Your task to perform on an android device: Go to network settings Image 0: 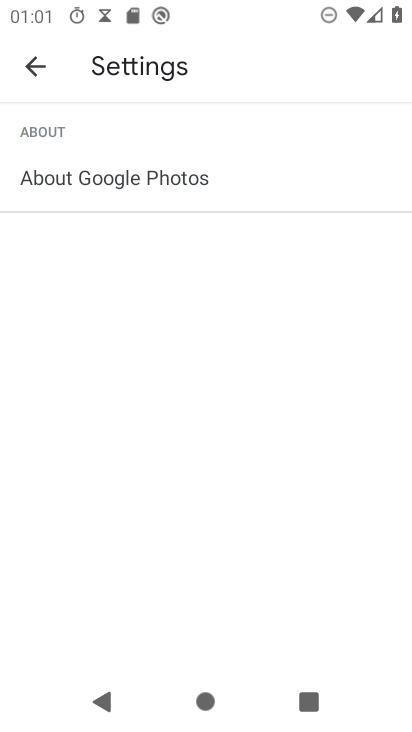
Step 0: press home button
Your task to perform on an android device: Go to network settings Image 1: 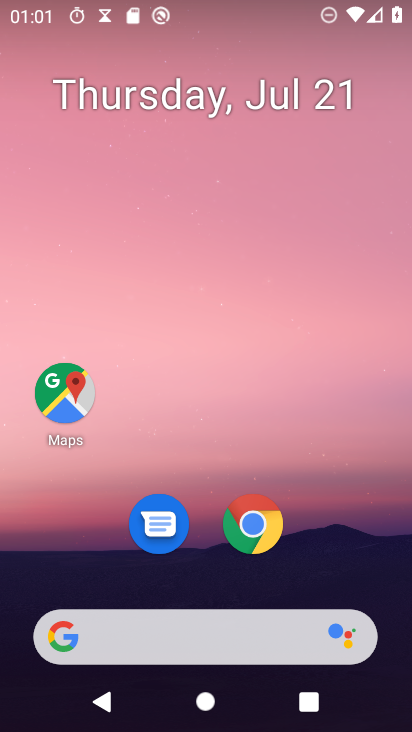
Step 1: drag from (181, 648) to (297, 155)
Your task to perform on an android device: Go to network settings Image 2: 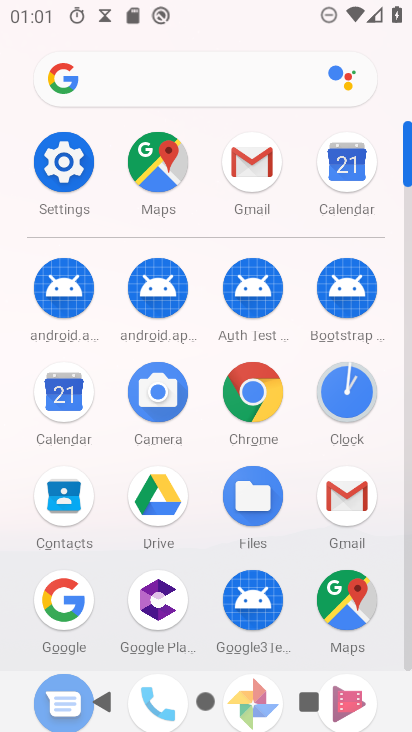
Step 2: click (62, 178)
Your task to perform on an android device: Go to network settings Image 3: 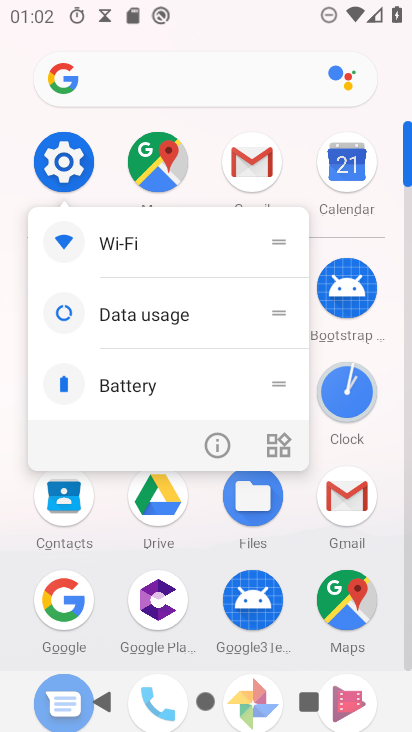
Step 3: click (63, 165)
Your task to perform on an android device: Go to network settings Image 4: 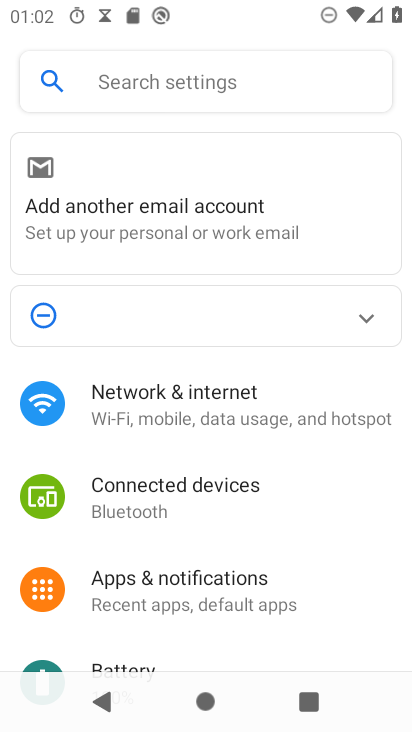
Step 4: click (191, 415)
Your task to perform on an android device: Go to network settings Image 5: 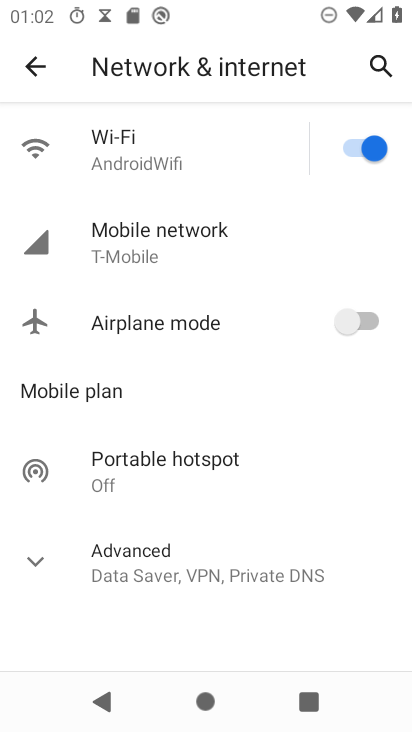
Step 5: click (148, 245)
Your task to perform on an android device: Go to network settings Image 6: 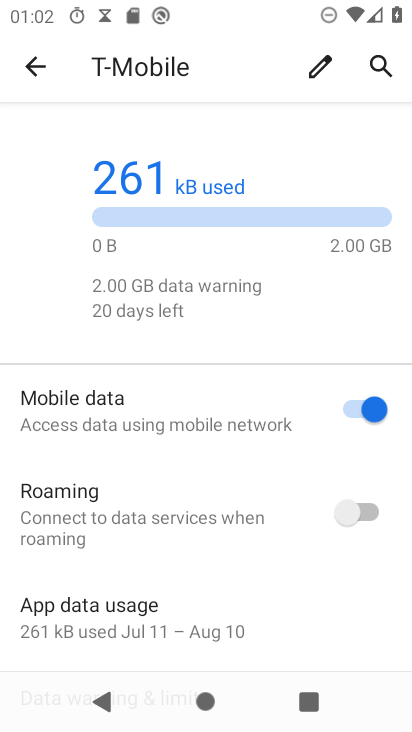
Step 6: task complete